Your task to perform on an android device: Go to Yahoo.com Image 0: 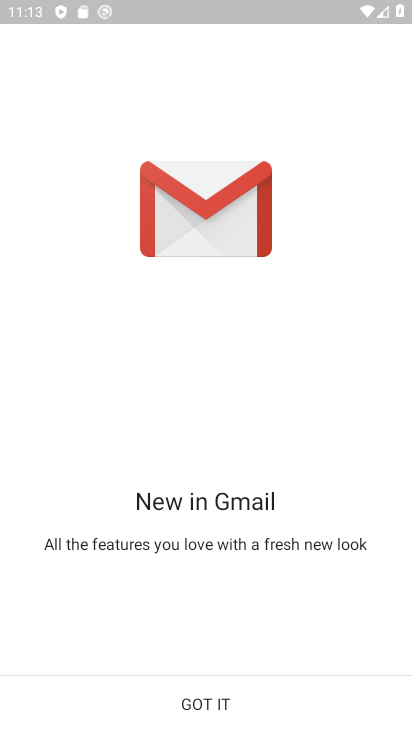
Step 0: press home button
Your task to perform on an android device: Go to Yahoo.com Image 1: 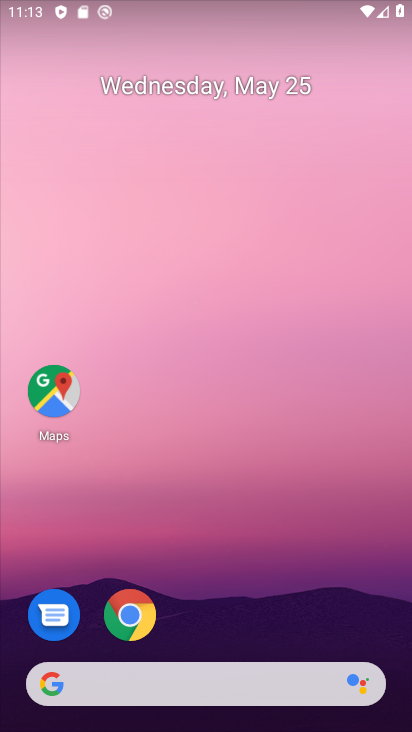
Step 1: click (137, 599)
Your task to perform on an android device: Go to Yahoo.com Image 2: 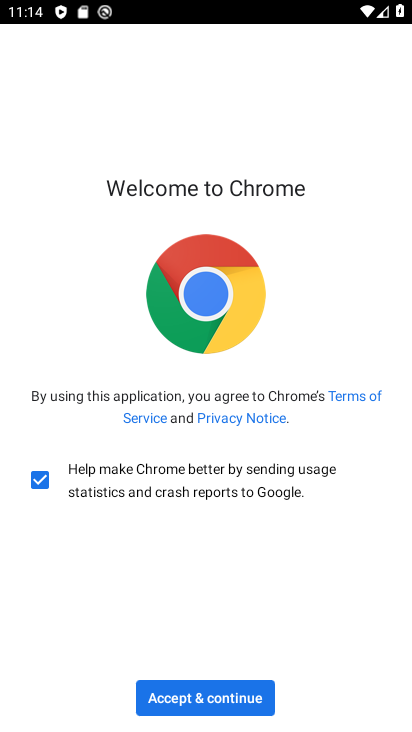
Step 2: click (179, 681)
Your task to perform on an android device: Go to Yahoo.com Image 3: 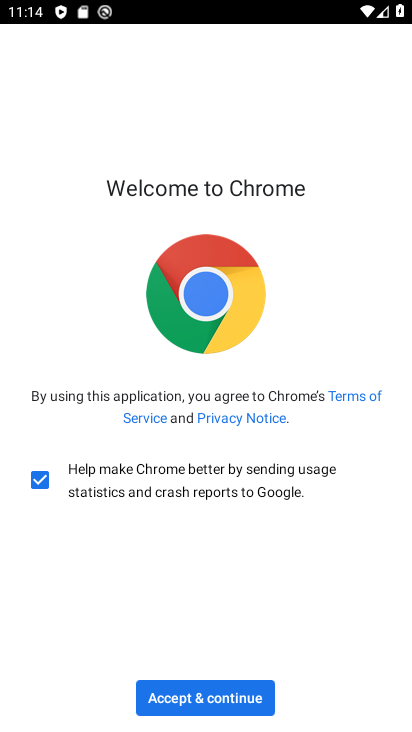
Step 3: click (179, 708)
Your task to perform on an android device: Go to Yahoo.com Image 4: 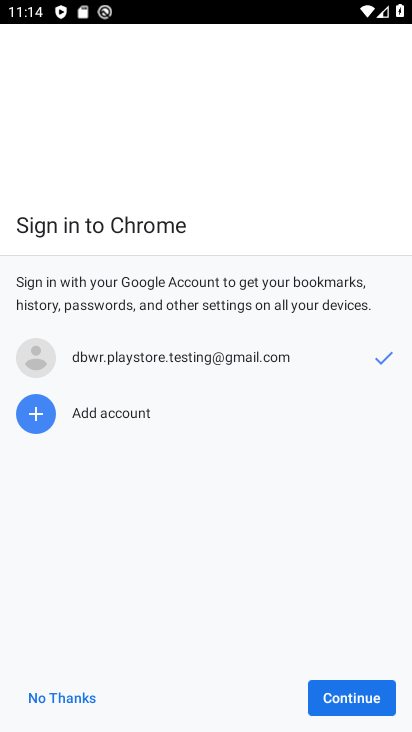
Step 4: click (179, 708)
Your task to perform on an android device: Go to Yahoo.com Image 5: 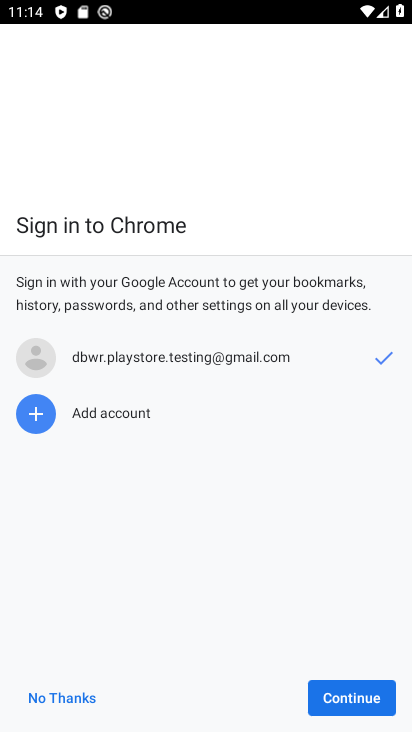
Step 5: click (351, 701)
Your task to perform on an android device: Go to Yahoo.com Image 6: 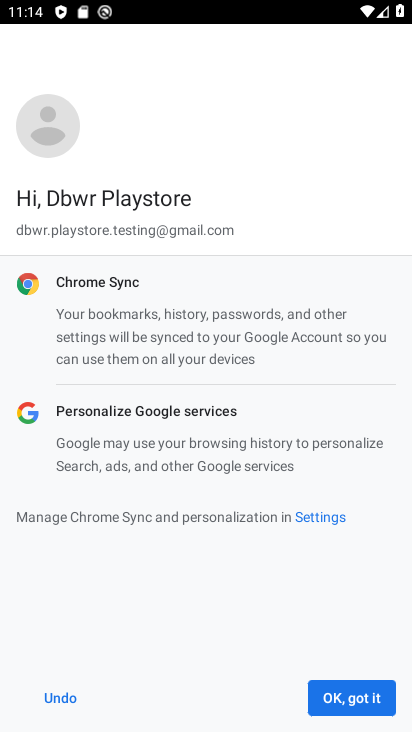
Step 6: click (351, 701)
Your task to perform on an android device: Go to Yahoo.com Image 7: 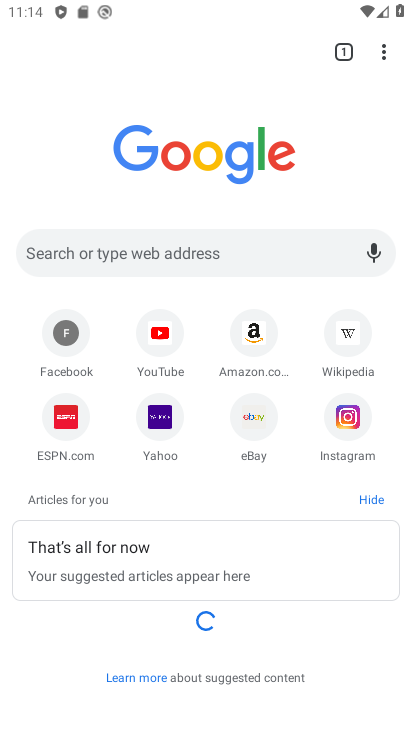
Step 7: click (172, 432)
Your task to perform on an android device: Go to Yahoo.com Image 8: 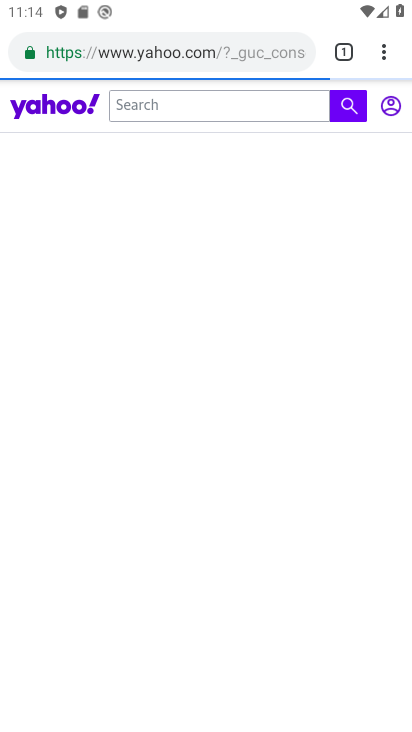
Step 8: task complete